Your task to perform on an android device: open device folders in google photos Image 0: 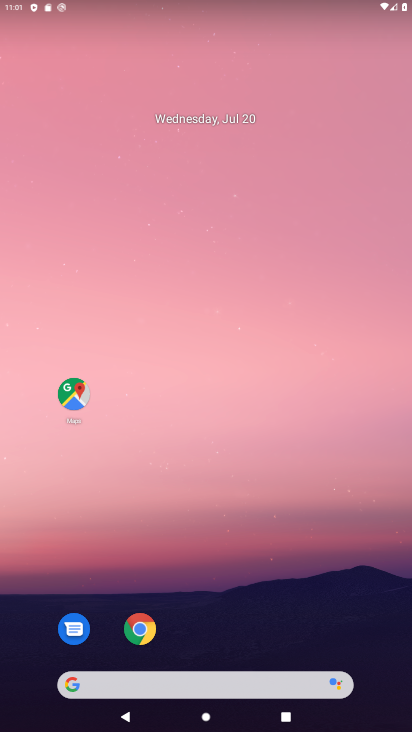
Step 0: drag from (279, 659) to (251, 46)
Your task to perform on an android device: open device folders in google photos Image 1: 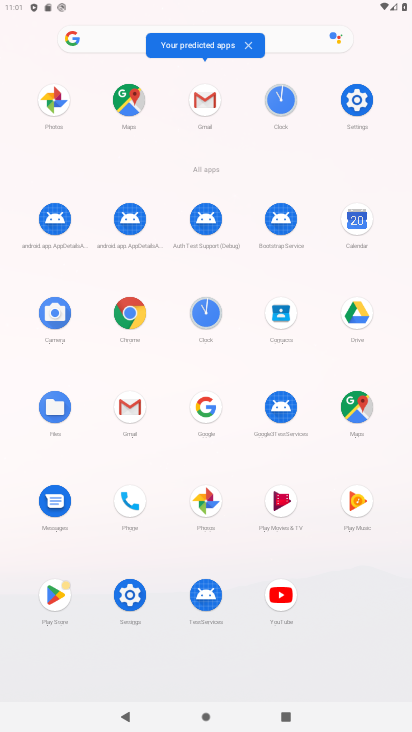
Step 1: click (215, 499)
Your task to perform on an android device: open device folders in google photos Image 2: 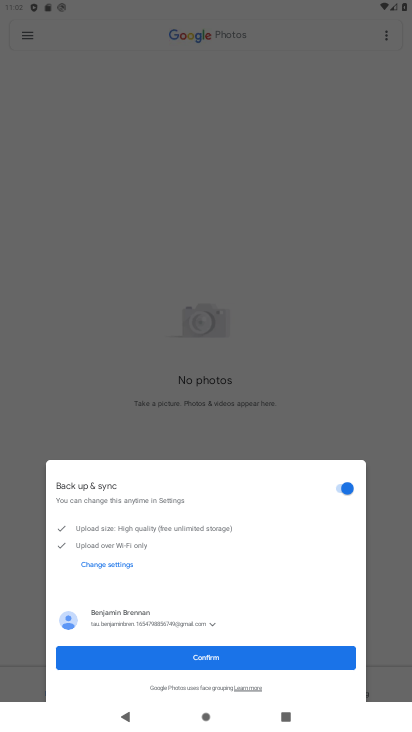
Step 2: click (236, 658)
Your task to perform on an android device: open device folders in google photos Image 3: 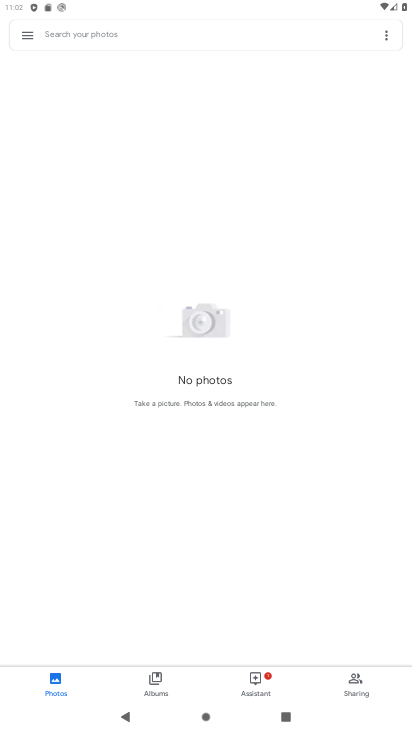
Step 3: click (386, 34)
Your task to perform on an android device: open device folders in google photos Image 4: 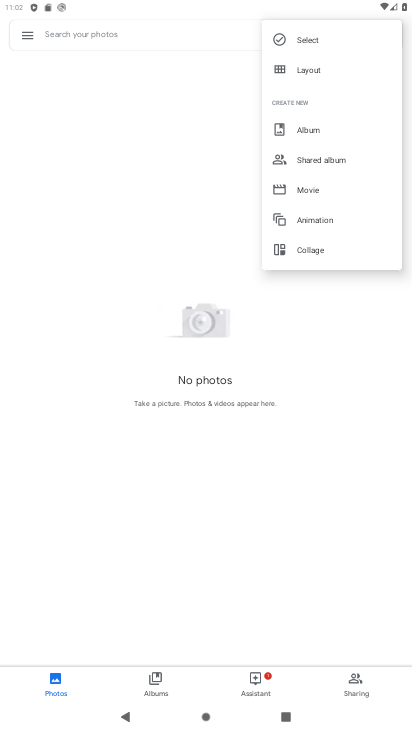
Step 4: click (278, 505)
Your task to perform on an android device: open device folders in google photos Image 5: 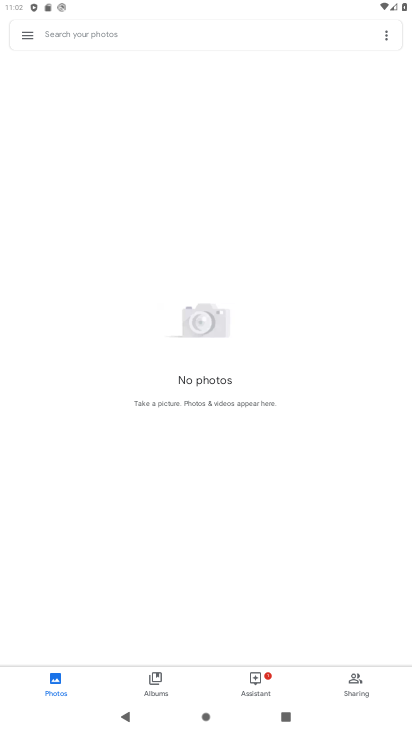
Step 5: click (35, 36)
Your task to perform on an android device: open device folders in google photos Image 6: 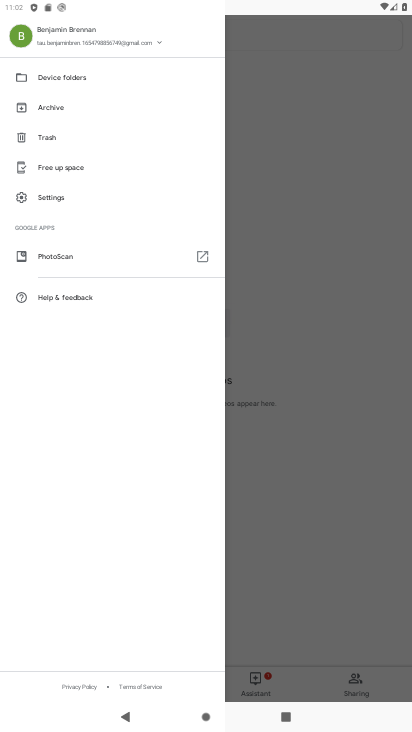
Step 6: click (85, 78)
Your task to perform on an android device: open device folders in google photos Image 7: 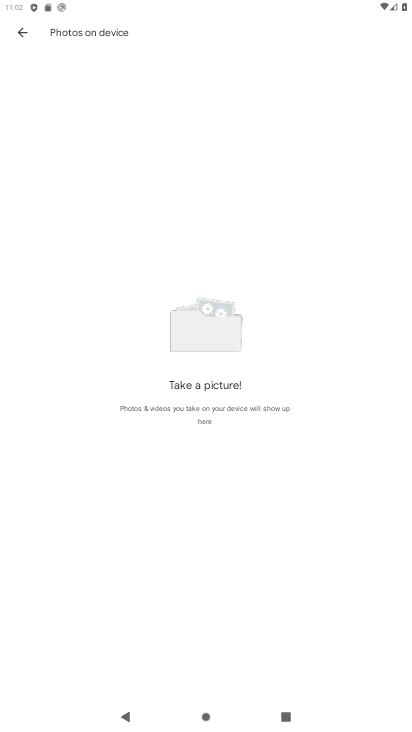
Step 7: task complete